Your task to perform on an android device: open app "Pluto TV - Live TV and Movies" (install if not already installed) Image 0: 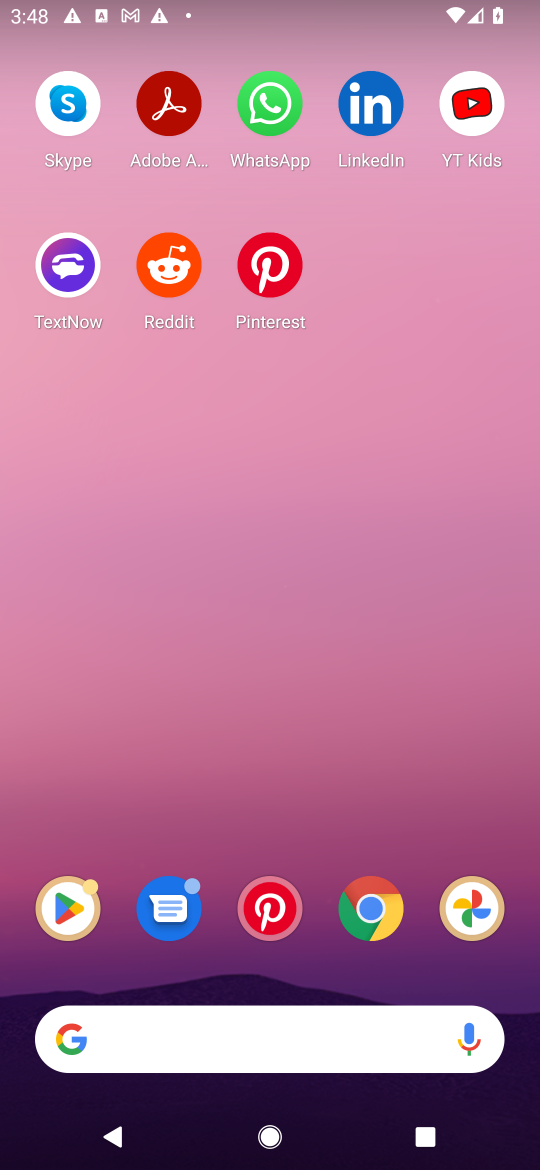
Step 0: click (60, 915)
Your task to perform on an android device: open app "Pluto TV - Live TV and Movies" (install if not already installed) Image 1: 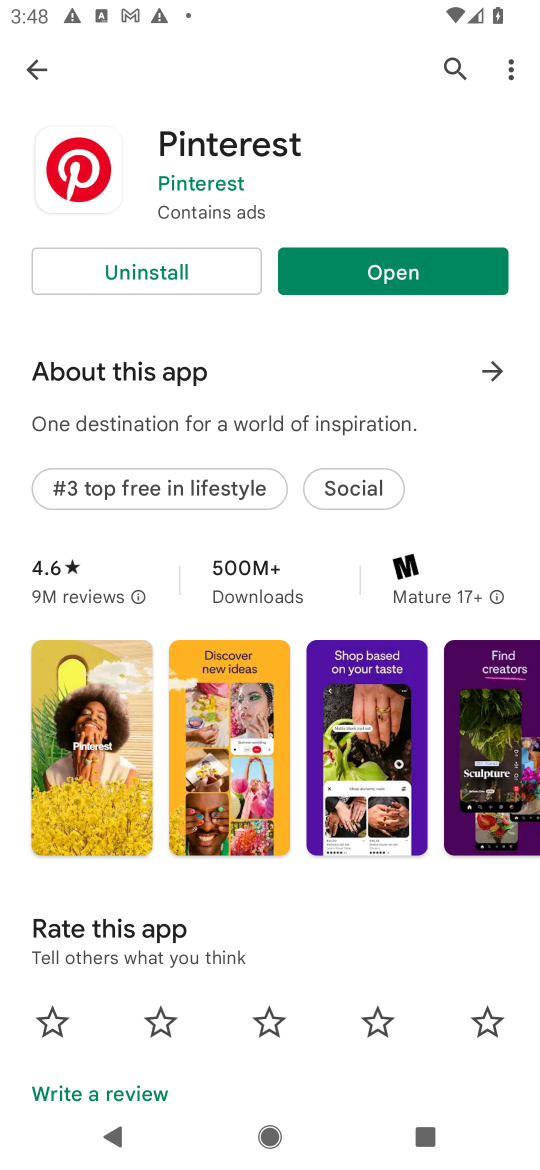
Step 1: click (448, 57)
Your task to perform on an android device: open app "Pluto TV - Live TV and Movies" (install if not already installed) Image 2: 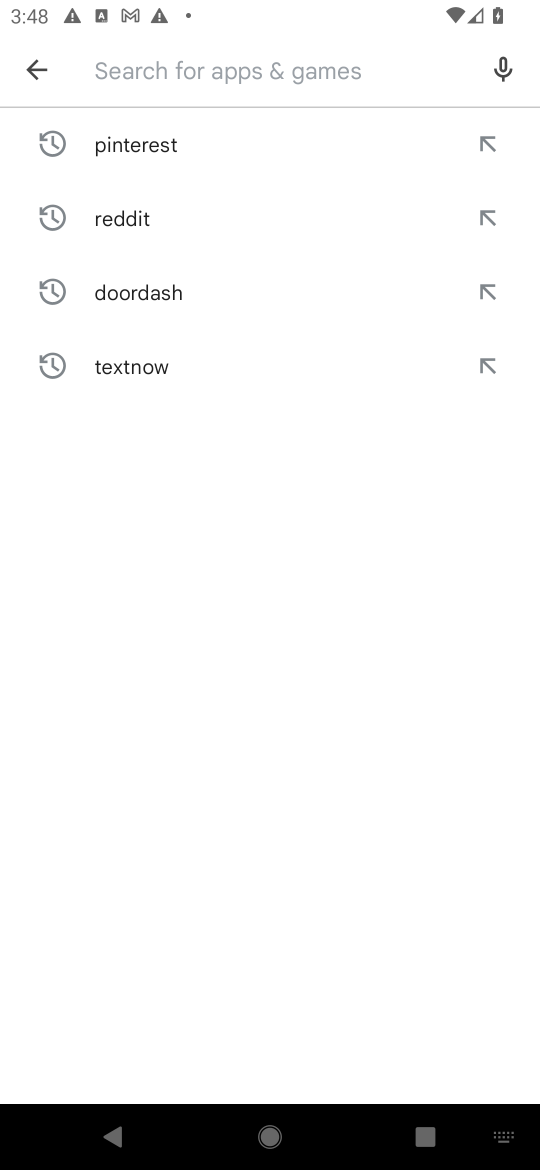
Step 2: type "Pluto TV "
Your task to perform on an android device: open app "Pluto TV - Live TV and Movies" (install if not already installed) Image 3: 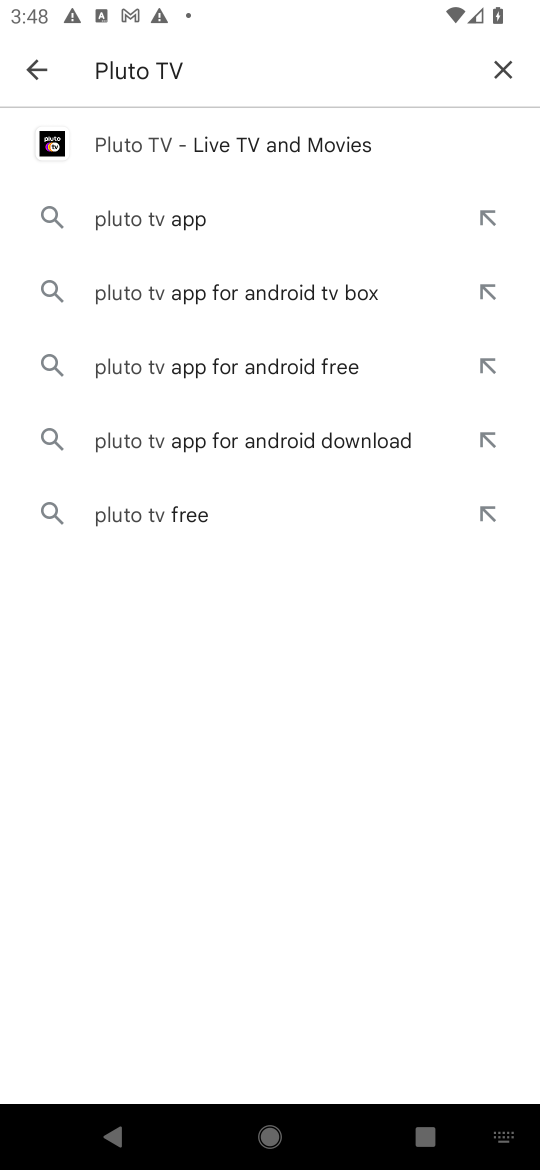
Step 3: click (253, 144)
Your task to perform on an android device: open app "Pluto TV - Live TV and Movies" (install if not already installed) Image 4: 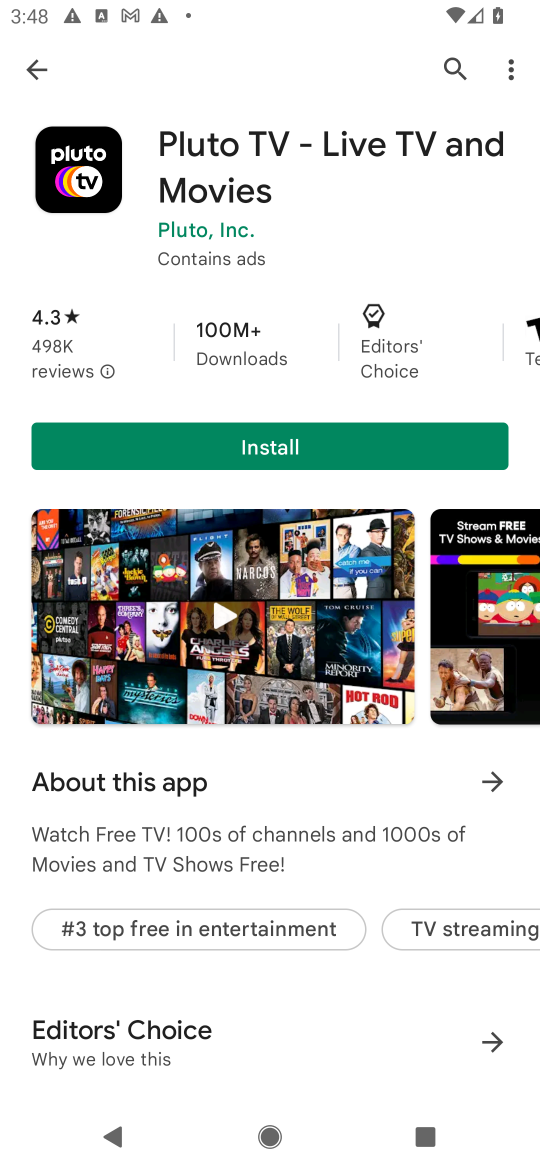
Step 4: click (334, 444)
Your task to perform on an android device: open app "Pluto TV - Live TV and Movies" (install if not already installed) Image 5: 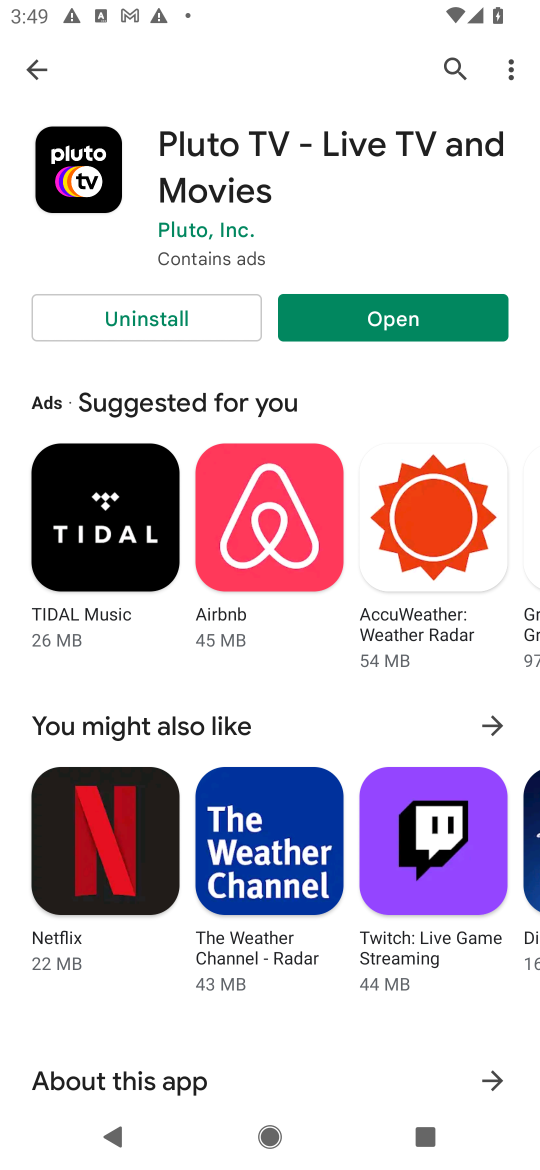
Step 5: click (392, 315)
Your task to perform on an android device: open app "Pluto TV - Live TV and Movies" (install if not already installed) Image 6: 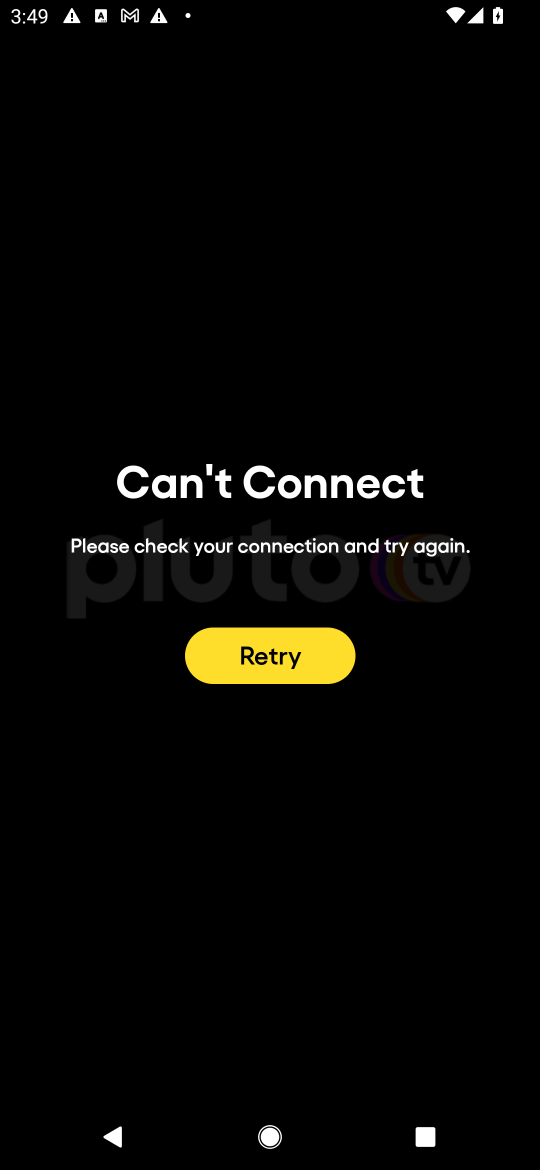
Step 6: task complete